Your task to perform on an android device: toggle wifi Image 0: 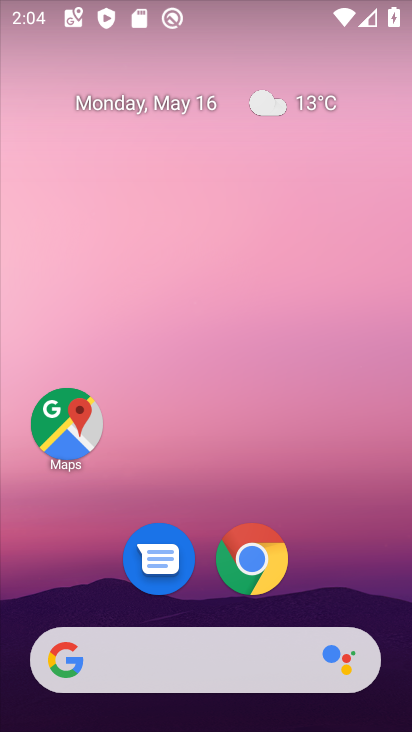
Step 0: drag from (81, 9) to (157, 580)
Your task to perform on an android device: toggle wifi Image 1: 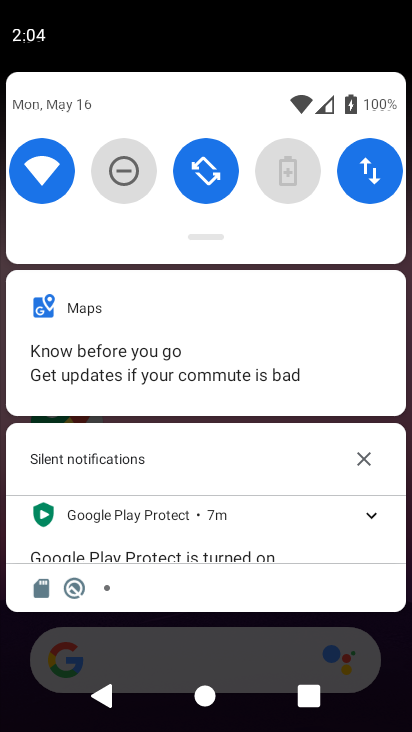
Step 1: click (59, 175)
Your task to perform on an android device: toggle wifi Image 2: 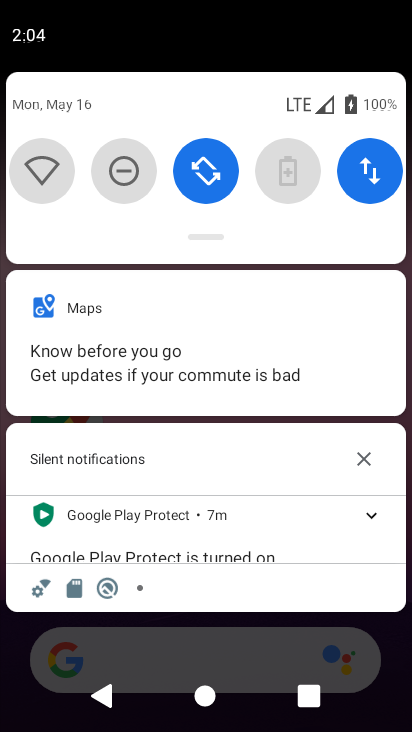
Step 2: task complete